Your task to perform on an android device: change the clock display to digital Image 0: 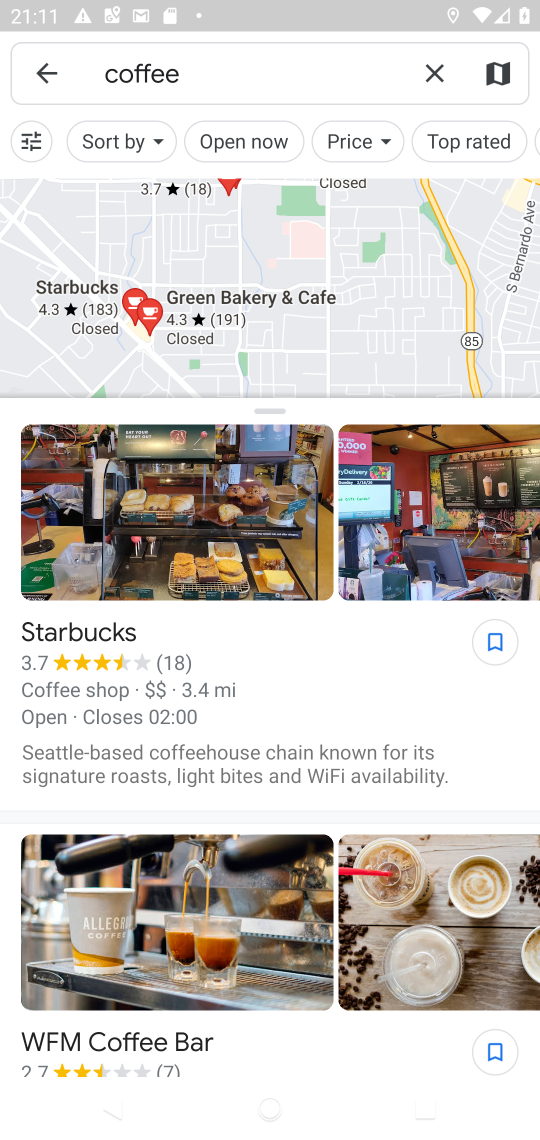
Step 0: press home button
Your task to perform on an android device: change the clock display to digital Image 1: 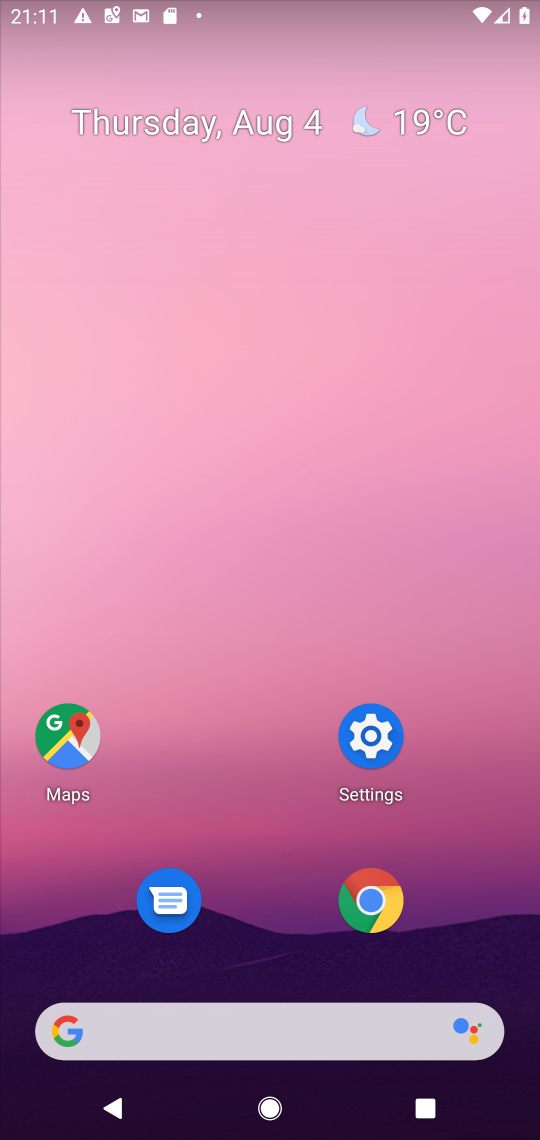
Step 1: drag from (249, 1023) to (431, 114)
Your task to perform on an android device: change the clock display to digital Image 2: 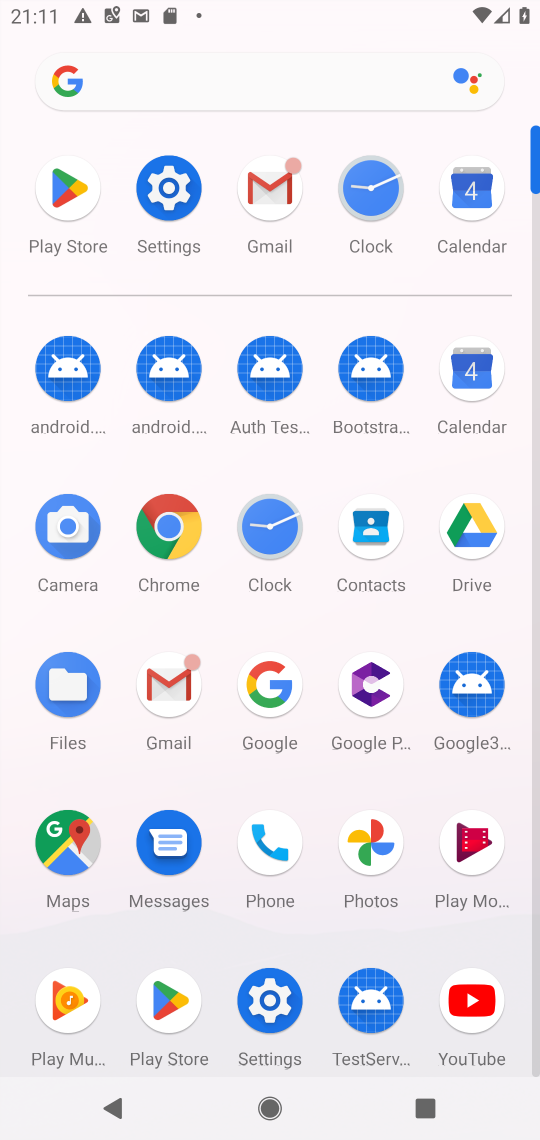
Step 2: click (359, 202)
Your task to perform on an android device: change the clock display to digital Image 3: 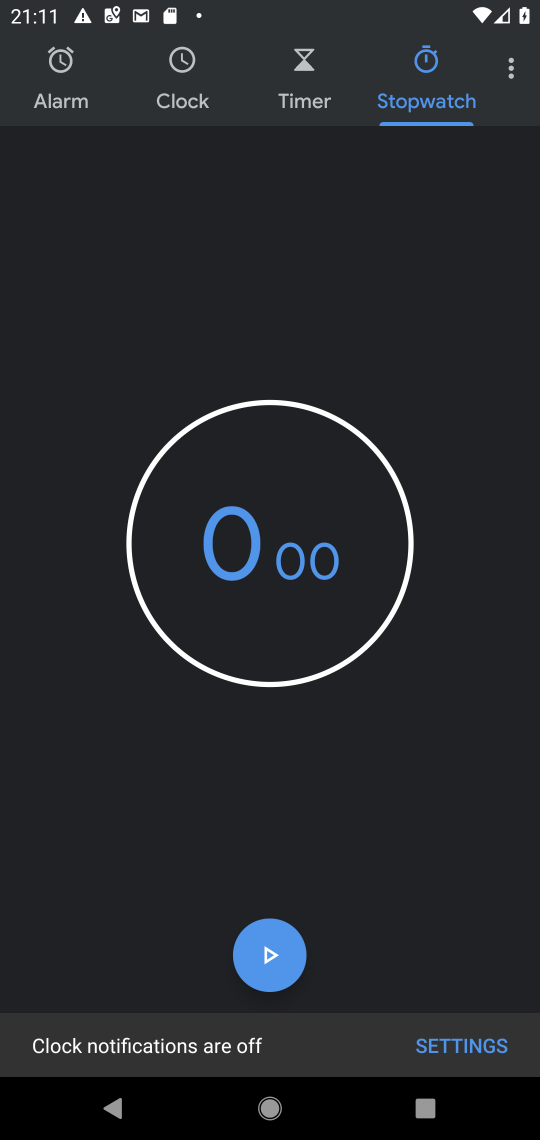
Step 3: click (510, 67)
Your task to perform on an android device: change the clock display to digital Image 4: 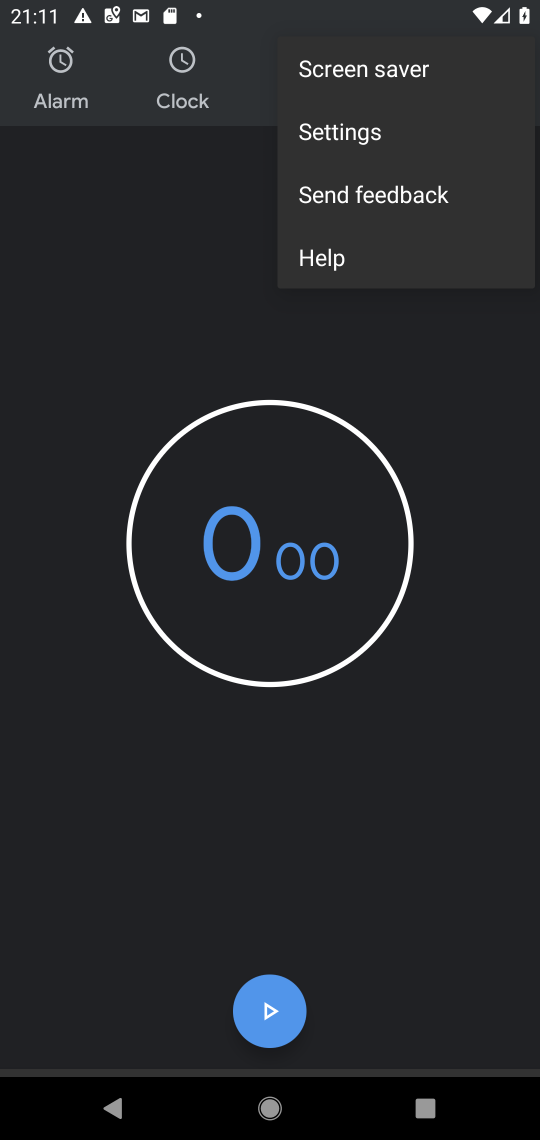
Step 4: click (347, 138)
Your task to perform on an android device: change the clock display to digital Image 5: 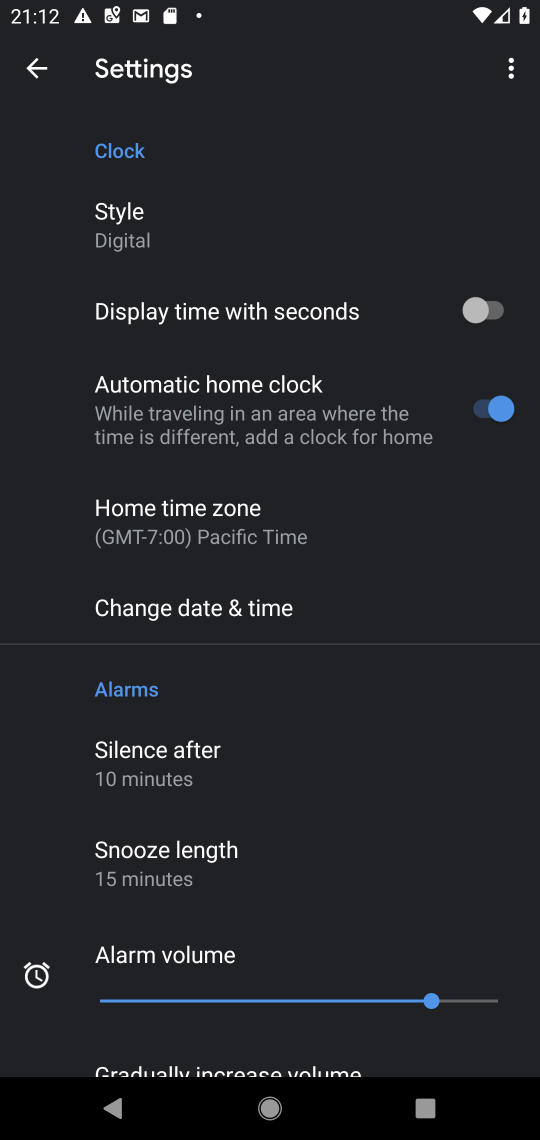
Step 5: task complete